Your task to perform on an android device: Check the weather Image 0: 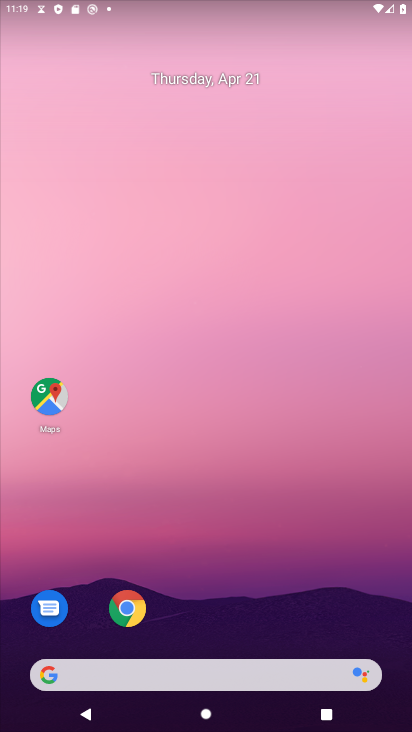
Step 0: click (127, 605)
Your task to perform on an android device: Check the weather Image 1: 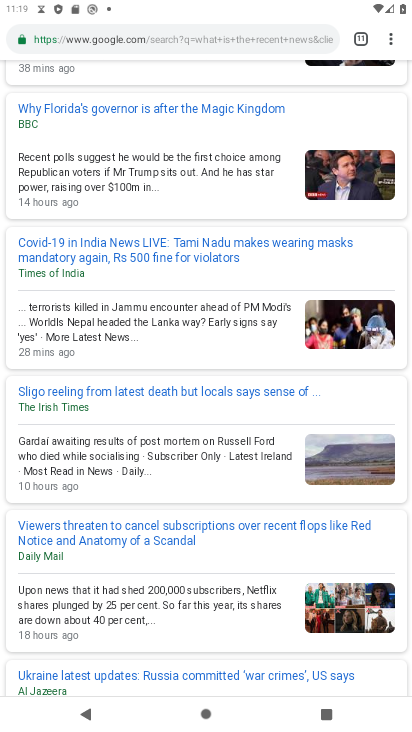
Step 1: click (360, 44)
Your task to perform on an android device: Check the weather Image 2: 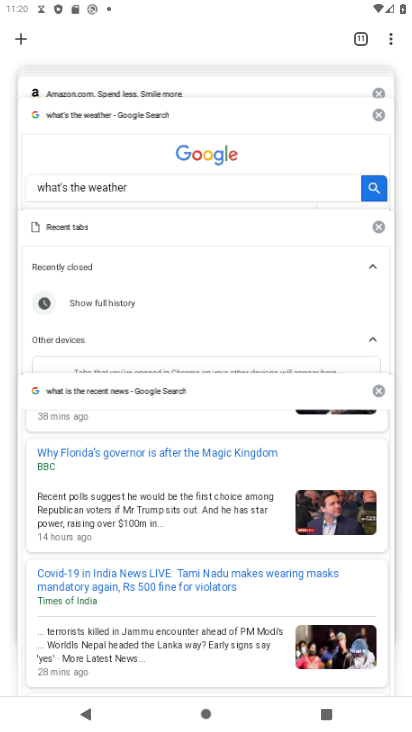
Step 2: click (91, 132)
Your task to perform on an android device: Check the weather Image 3: 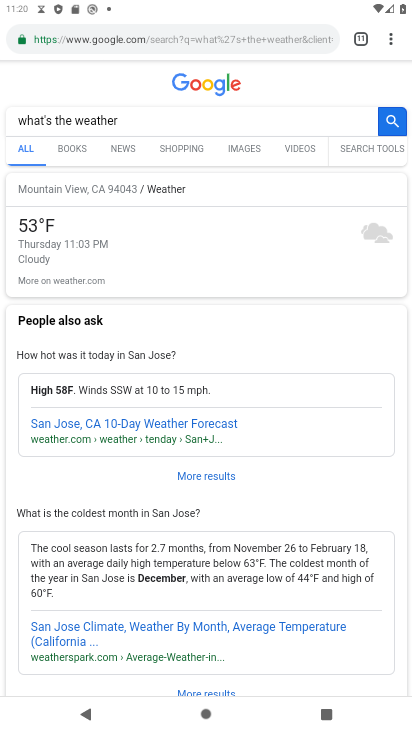
Step 3: task complete